Your task to perform on an android device: turn off javascript in the chrome app Image 0: 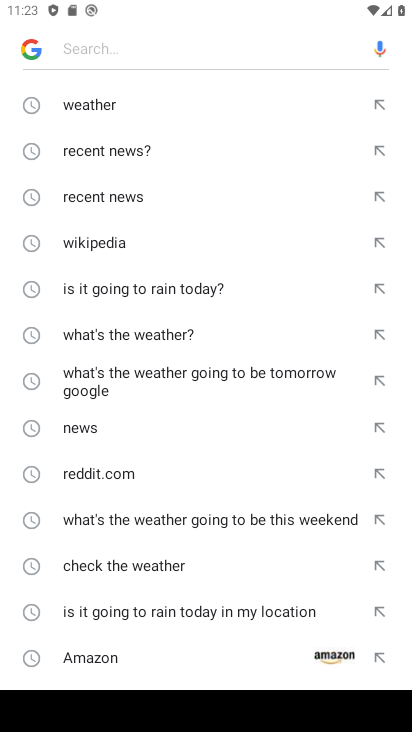
Step 0: press home button
Your task to perform on an android device: turn off javascript in the chrome app Image 1: 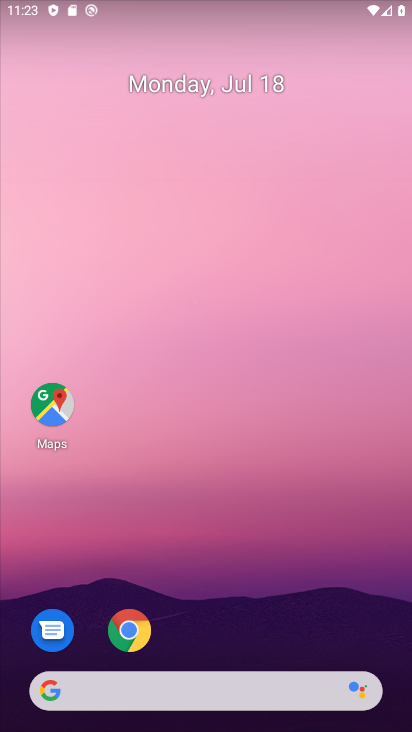
Step 1: click (131, 640)
Your task to perform on an android device: turn off javascript in the chrome app Image 2: 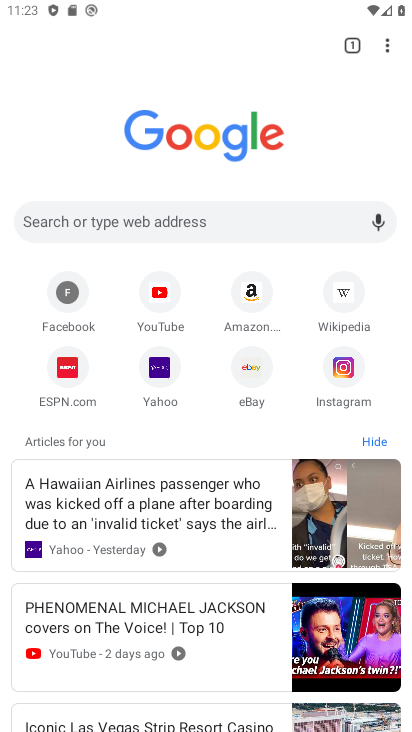
Step 2: click (387, 43)
Your task to perform on an android device: turn off javascript in the chrome app Image 3: 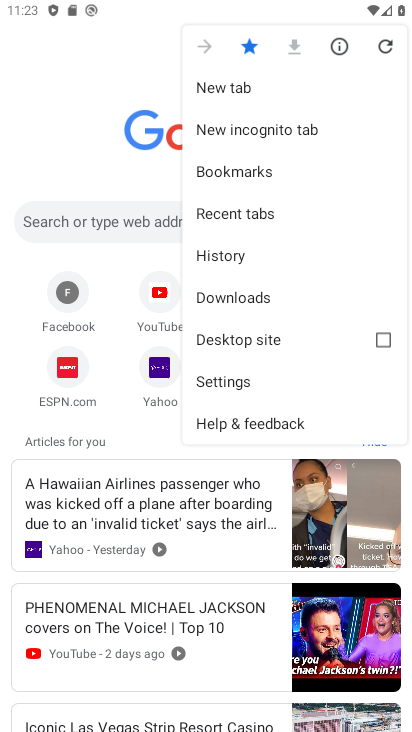
Step 3: click (234, 384)
Your task to perform on an android device: turn off javascript in the chrome app Image 4: 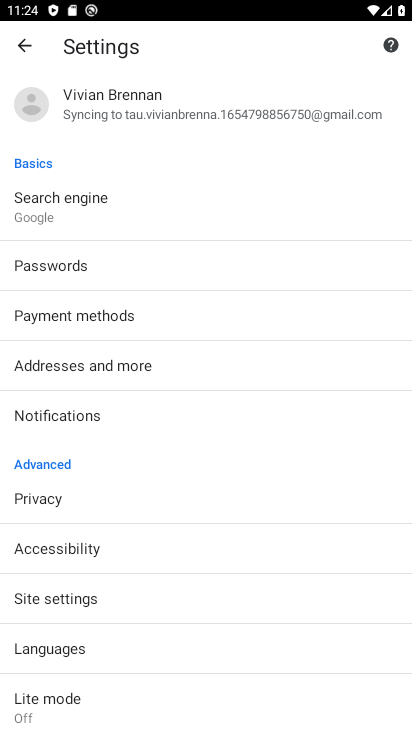
Step 4: click (71, 595)
Your task to perform on an android device: turn off javascript in the chrome app Image 5: 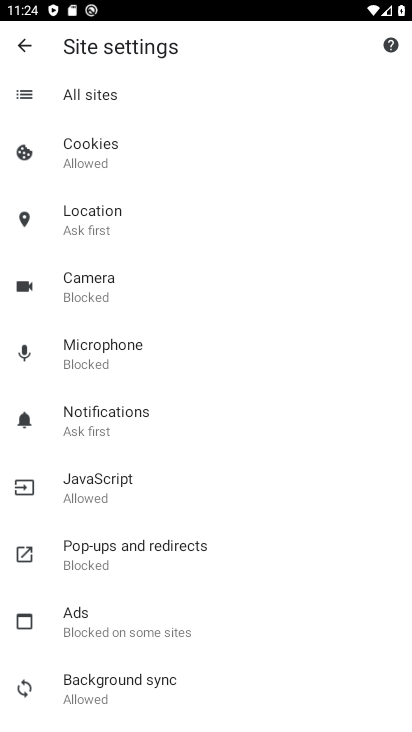
Step 5: click (128, 495)
Your task to perform on an android device: turn off javascript in the chrome app Image 6: 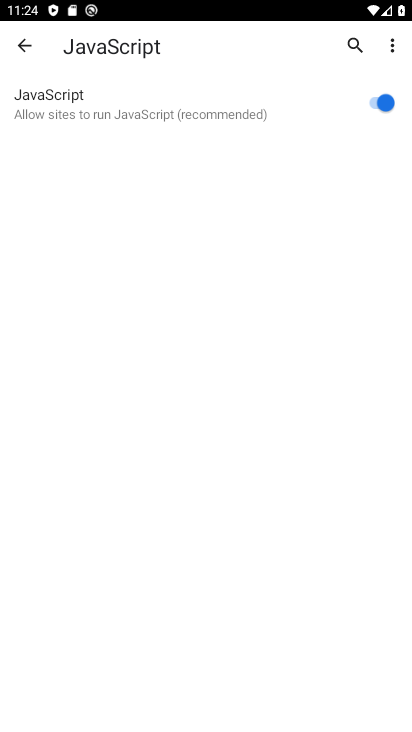
Step 6: click (355, 107)
Your task to perform on an android device: turn off javascript in the chrome app Image 7: 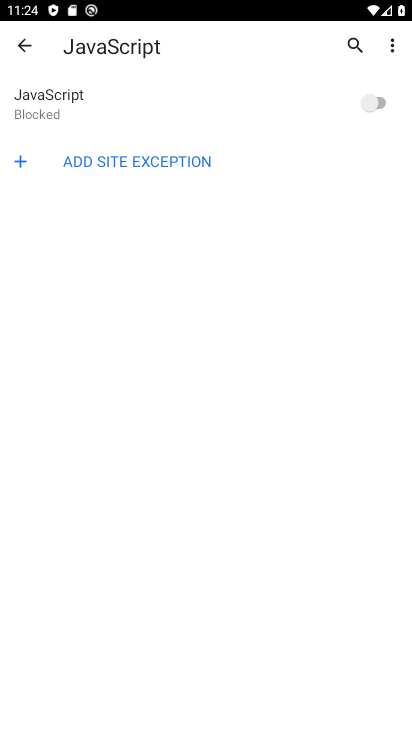
Step 7: task complete